Your task to perform on an android device: turn on wifi Image 0: 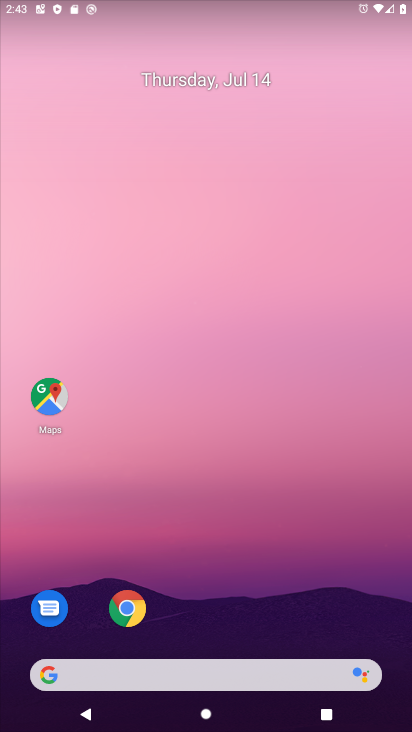
Step 0: drag from (238, 710) to (300, 95)
Your task to perform on an android device: turn on wifi Image 1: 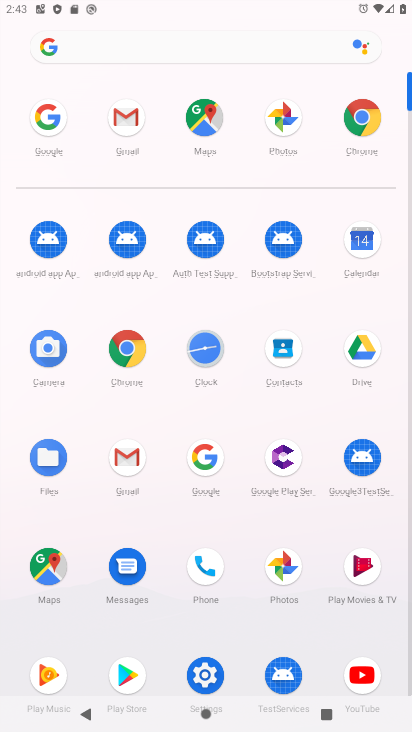
Step 1: click (205, 664)
Your task to perform on an android device: turn on wifi Image 2: 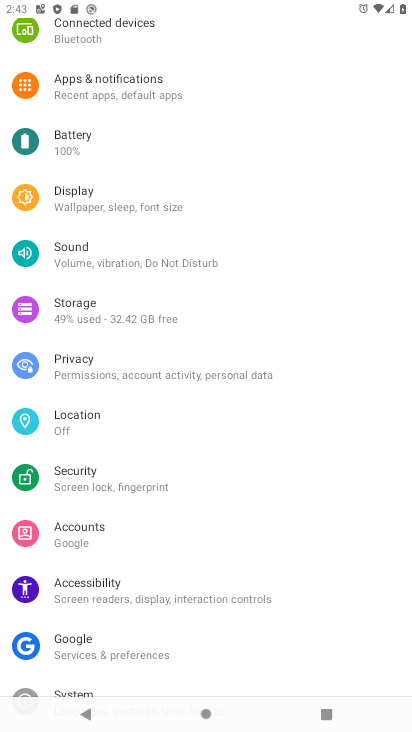
Step 2: drag from (229, 93) to (289, 606)
Your task to perform on an android device: turn on wifi Image 3: 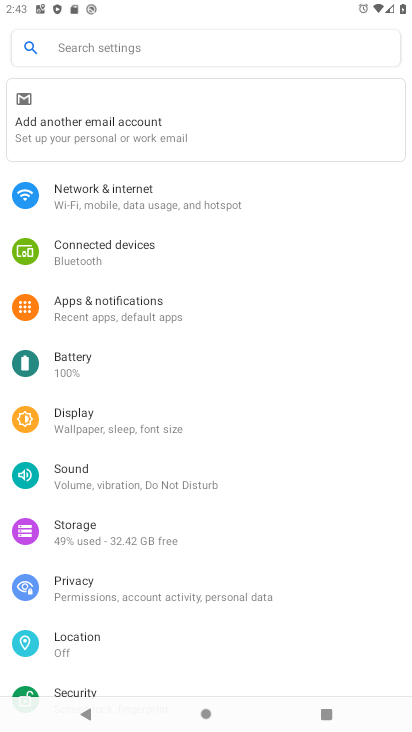
Step 3: click (64, 189)
Your task to perform on an android device: turn on wifi Image 4: 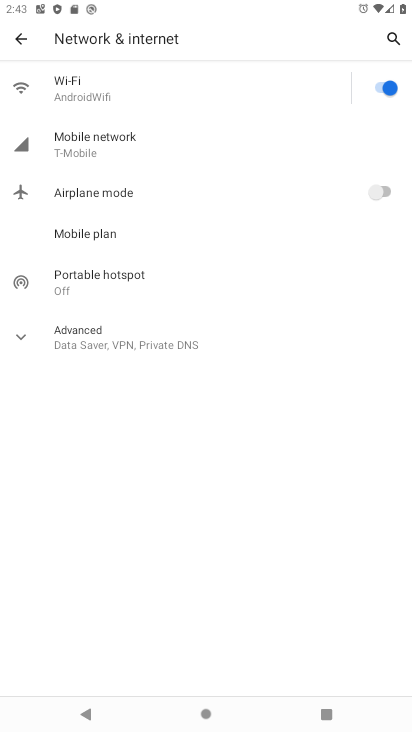
Step 4: task complete